Your task to perform on an android device: stop showing notifications on the lock screen Image 0: 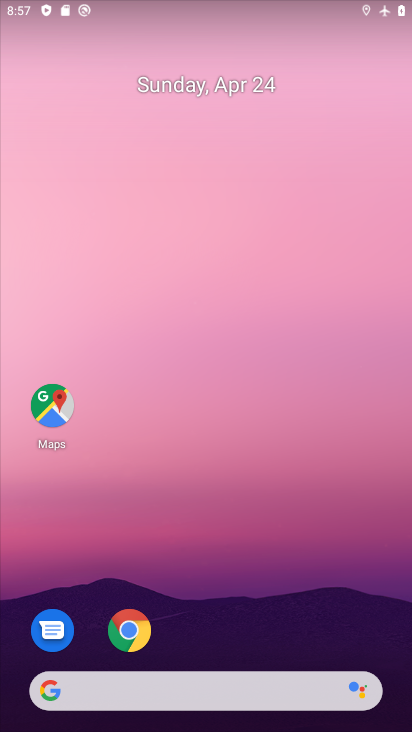
Step 0: drag from (183, 491) to (215, 281)
Your task to perform on an android device: stop showing notifications on the lock screen Image 1: 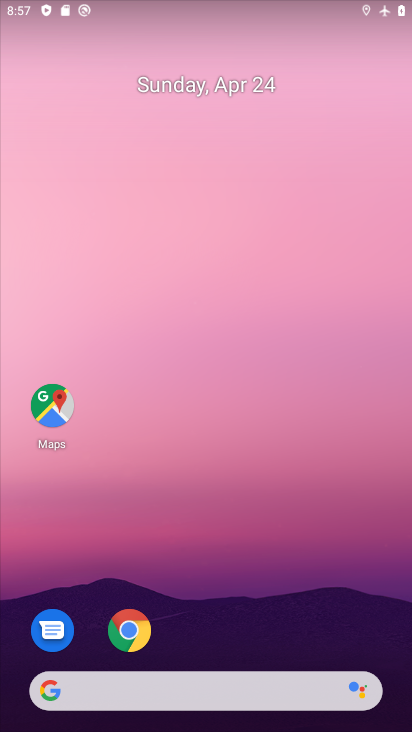
Step 1: drag from (209, 653) to (247, 229)
Your task to perform on an android device: stop showing notifications on the lock screen Image 2: 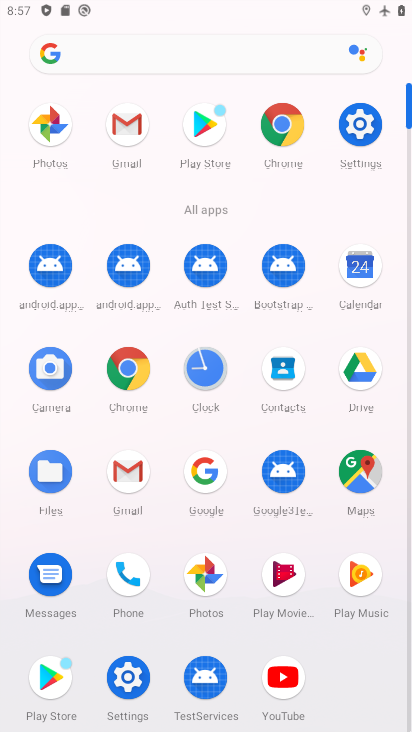
Step 2: click (350, 141)
Your task to perform on an android device: stop showing notifications on the lock screen Image 3: 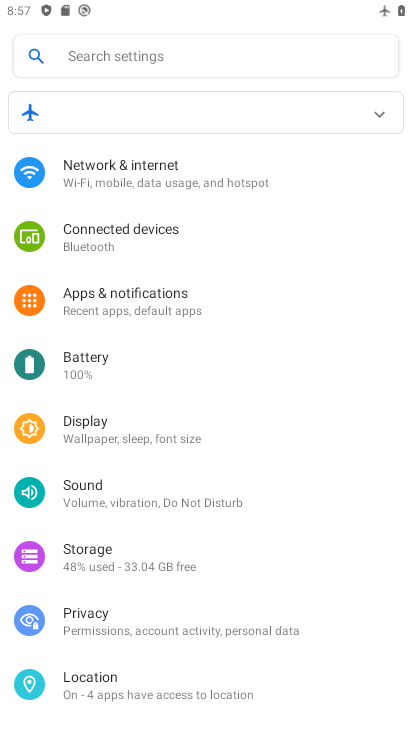
Step 3: click (147, 314)
Your task to perform on an android device: stop showing notifications on the lock screen Image 4: 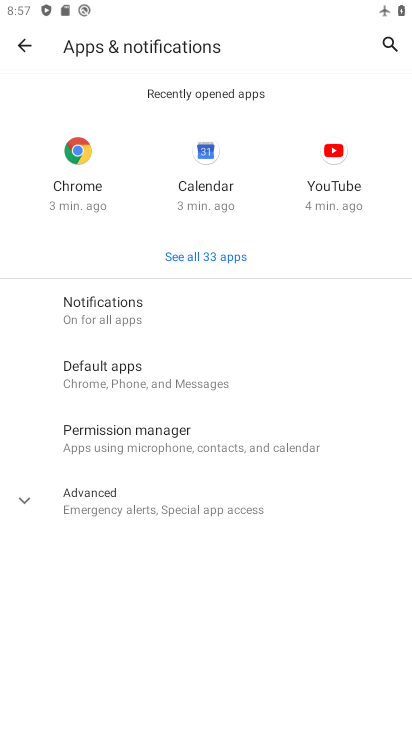
Step 4: click (170, 329)
Your task to perform on an android device: stop showing notifications on the lock screen Image 5: 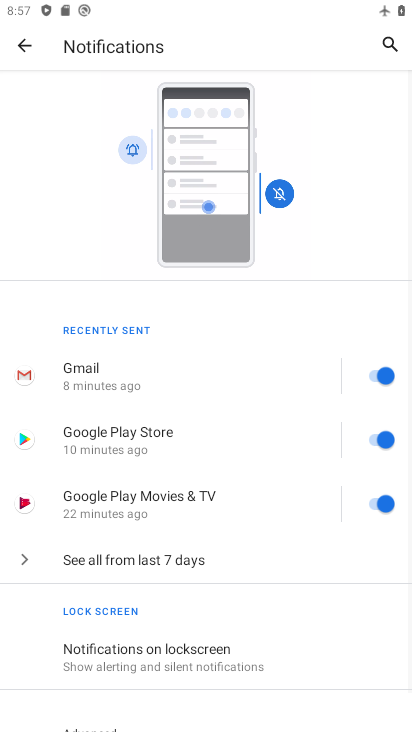
Step 5: click (181, 652)
Your task to perform on an android device: stop showing notifications on the lock screen Image 6: 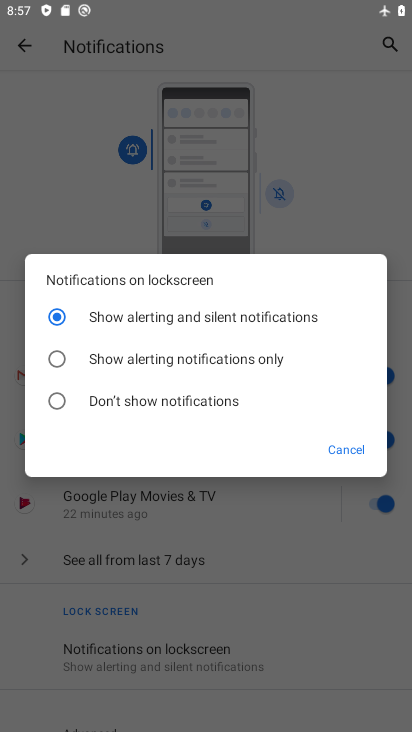
Step 6: click (157, 409)
Your task to perform on an android device: stop showing notifications on the lock screen Image 7: 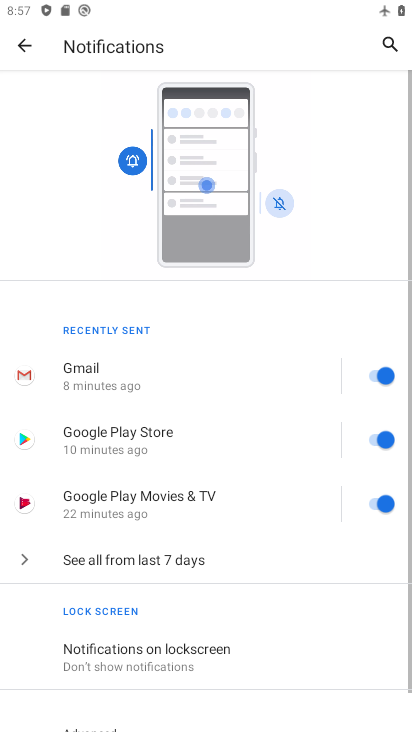
Step 7: task complete